Your task to perform on an android device: install app "Firefox Browser" Image 0: 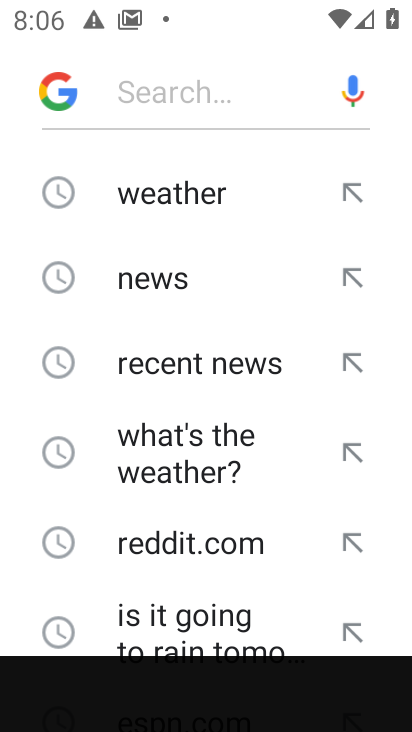
Step 0: press home button
Your task to perform on an android device: install app "Firefox Browser" Image 1: 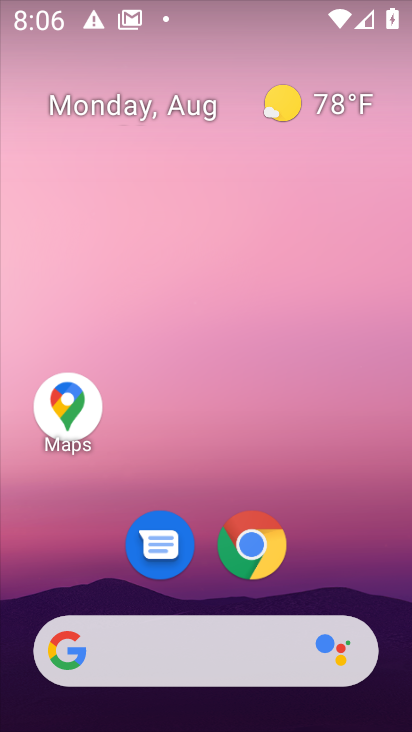
Step 1: drag from (343, 585) to (355, 112)
Your task to perform on an android device: install app "Firefox Browser" Image 2: 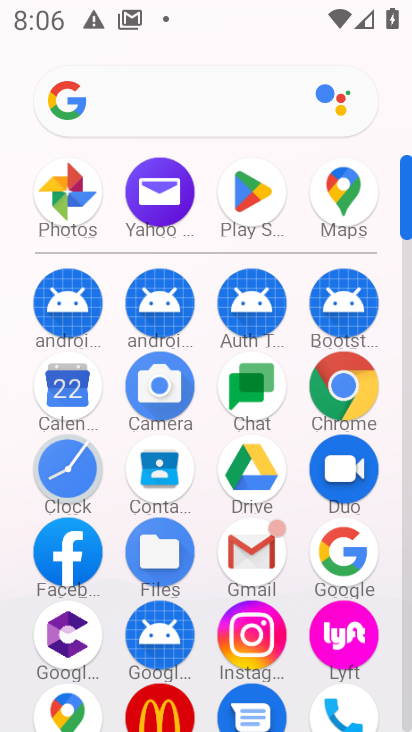
Step 2: click (276, 197)
Your task to perform on an android device: install app "Firefox Browser" Image 3: 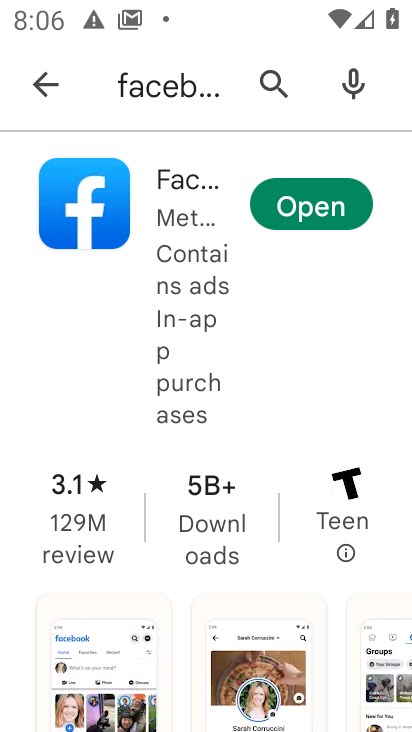
Step 3: press back button
Your task to perform on an android device: install app "Firefox Browser" Image 4: 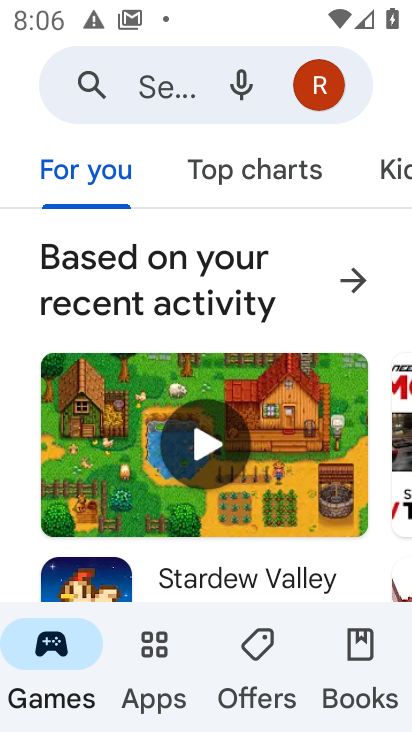
Step 4: click (164, 91)
Your task to perform on an android device: install app "Firefox Browser" Image 5: 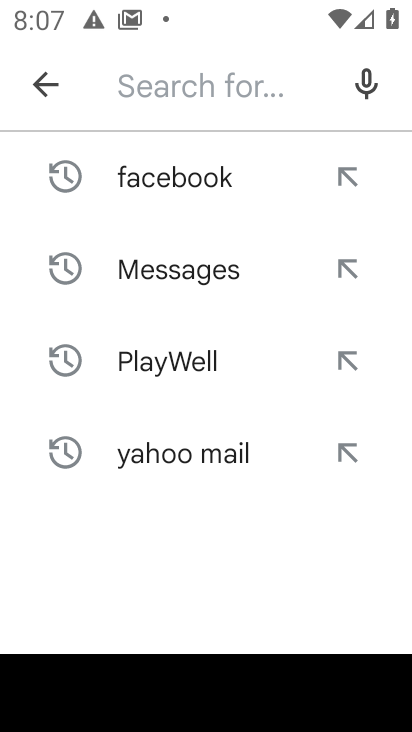
Step 5: type "Firefox Browser"
Your task to perform on an android device: install app "Firefox Browser" Image 6: 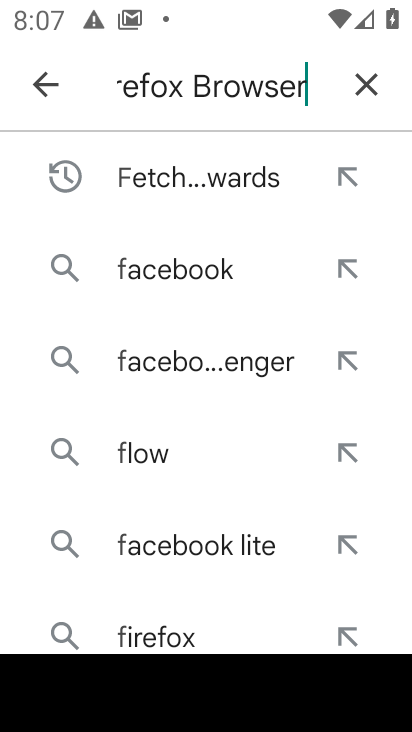
Step 6: press enter
Your task to perform on an android device: install app "Firefox Browser" Image 7: 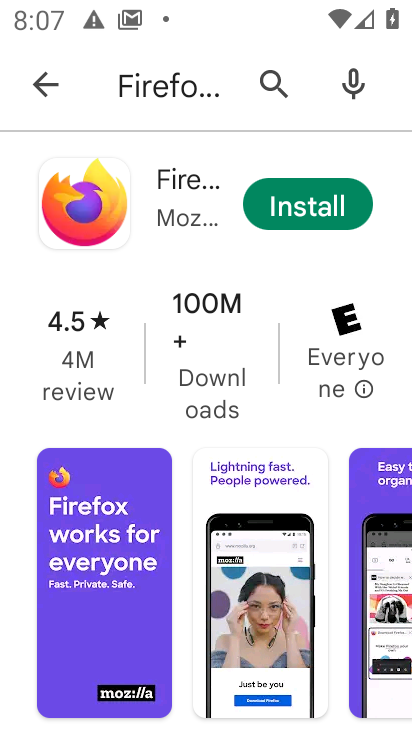
Step 7: click (327, 207)
Your task to perform on an android device: install app "Firefox Browser" Image 8: 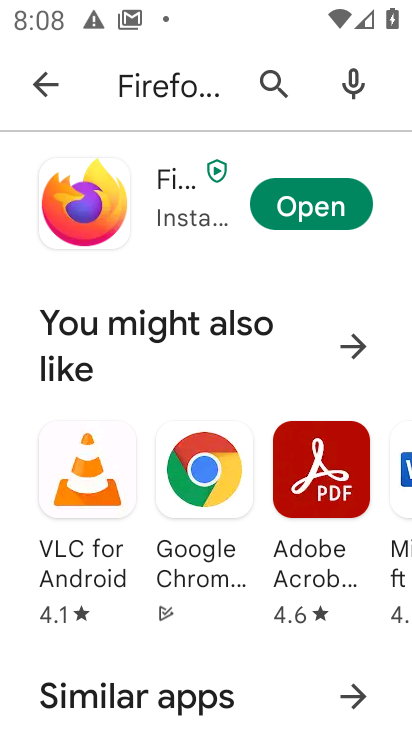
Step 8: task complete